Your task to perform on an android device: find photos in the google photos app Image 0: 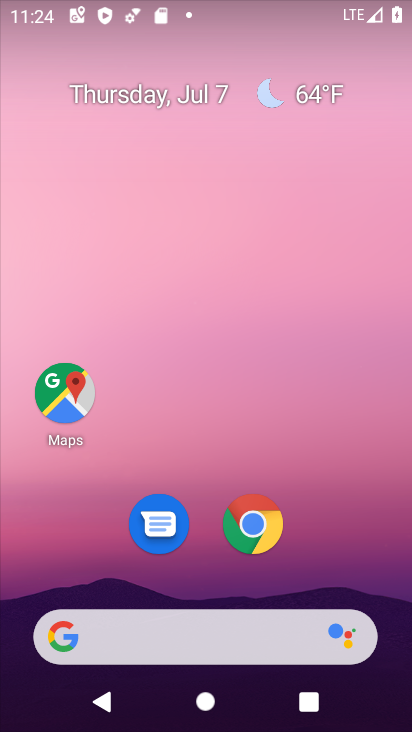
Step 0: drag from (302, 468) to (282, 0)
Your task to perform on an android device: find photos in the google photos app Image 1: 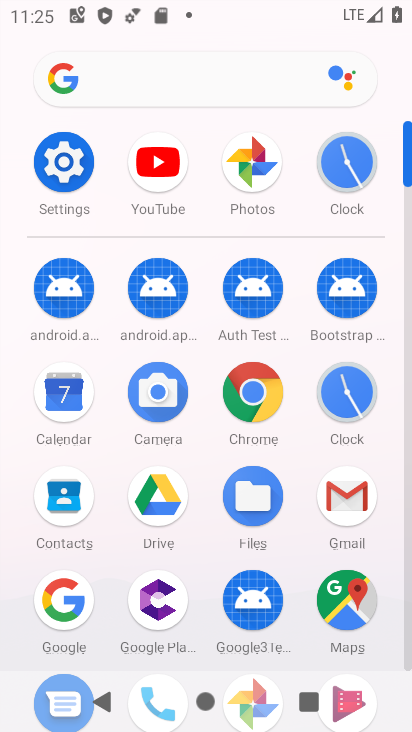
Step 1: click (249, 169)
Your task to perform on an android device: find photos in the google photos app Image 2: 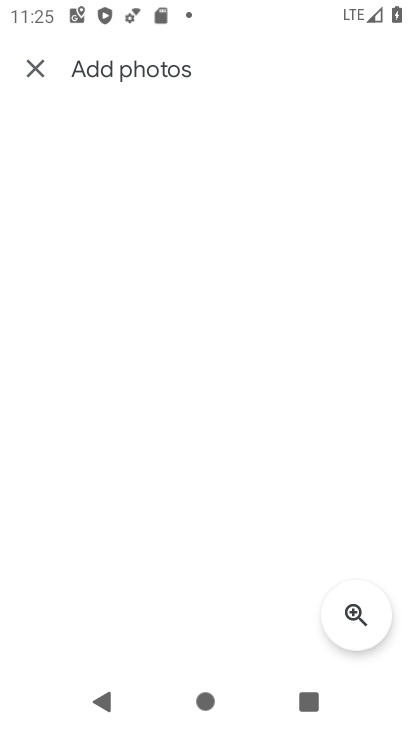
Step 2: click (33, 67)
Your task to perform on an android device: find photos in the google photos app Image 3: 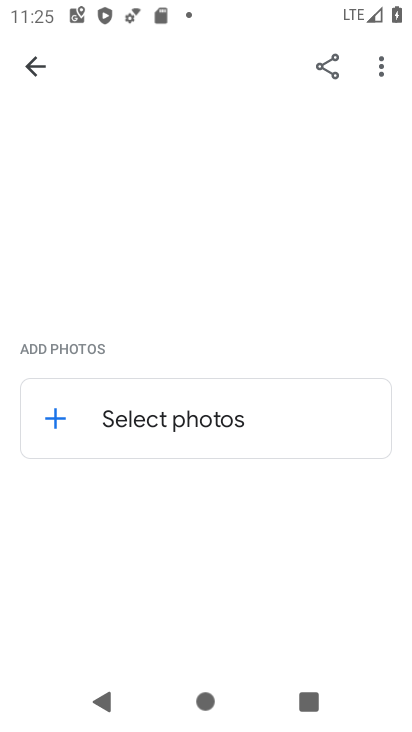
Step 3: click (41, 67)
Your task to perform on an android device: find photos in the google photos app Image 4: 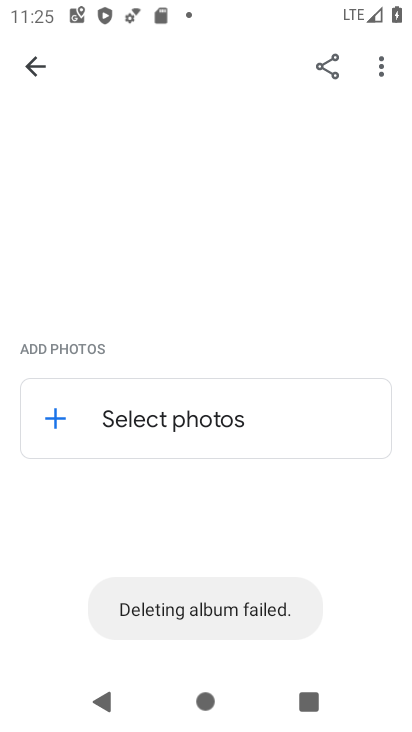
Step 4: click (41, 67)
Your task to perform on an android device: find photos in the google photos app Image 5: 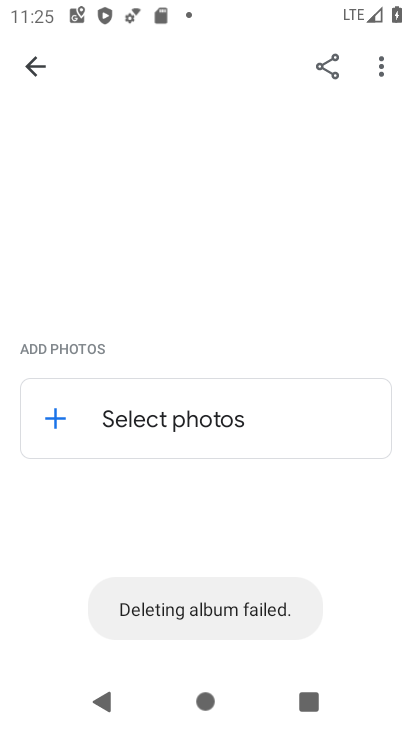
Step 5: press back button
Your task to perform on an android device: find photos in the google photos app Image 6: 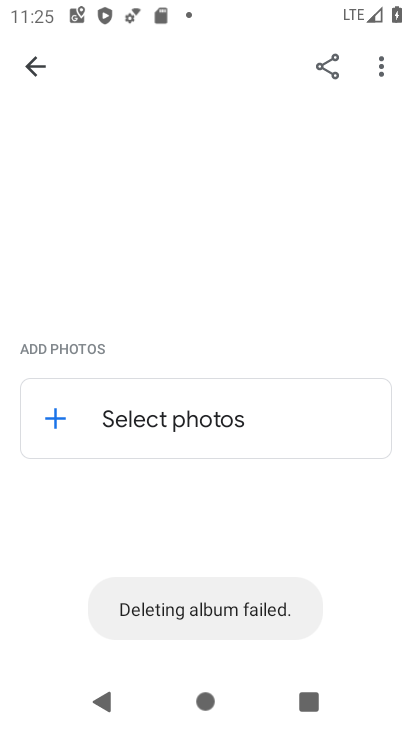
Step 6: press back button
Your task to perform on an android device: find photos in the google photos app Image 7: 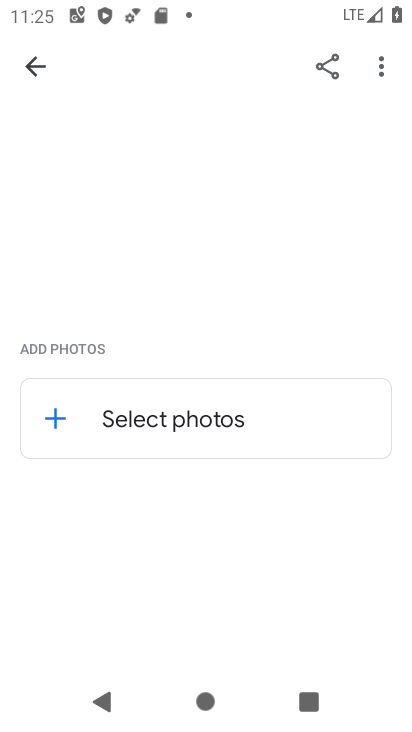
Step 7: click (108, 700)
Your task to perform on an android device: find photos in the google photos app Image 8: 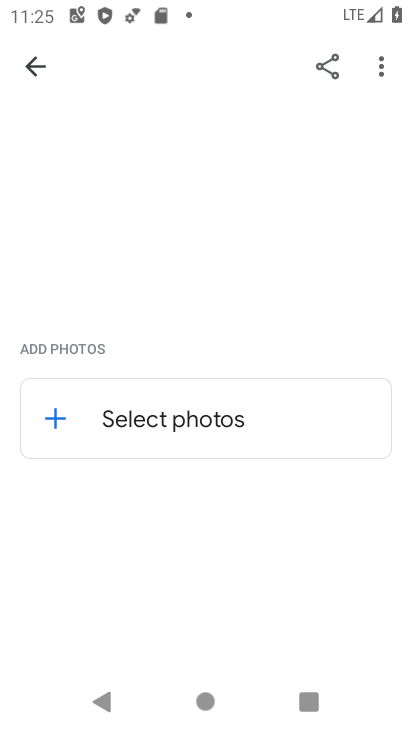
Step 8: press home button
Your task to perform on an android device: find photos in the google photos app Image 9: 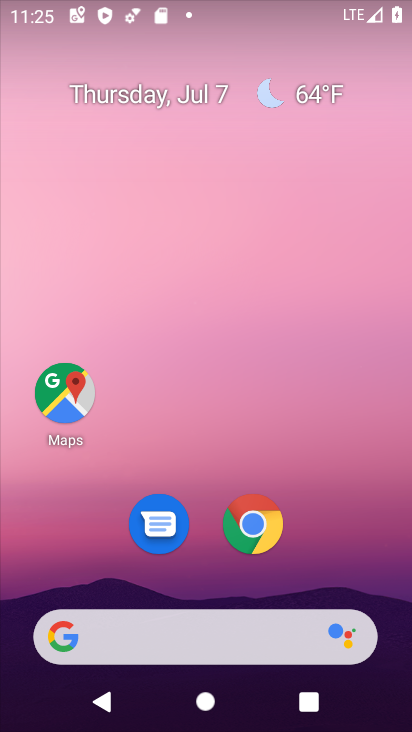
Step 9: drag from (218, 508) to (246, 18)
Your task to perform on an android device: find photos in the google photos app Image 10: 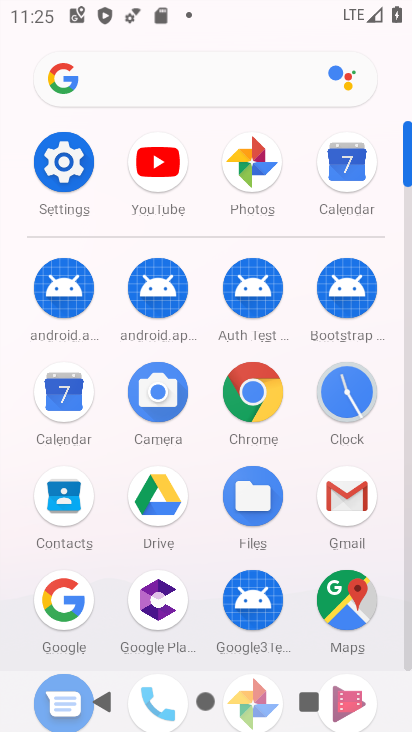
Step 10: click (238, 160)
Your task to perform on an android device: find photos in the google photos app Image 11: 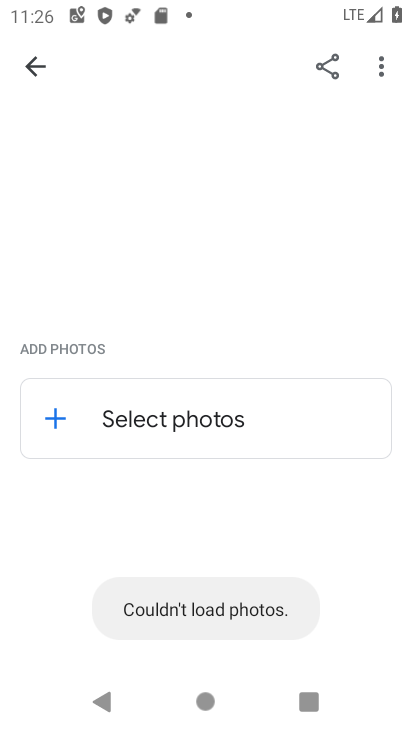
Step 11: click (384, 62)
Your task to perform on an android device: find photos in the google photos app Image 12: 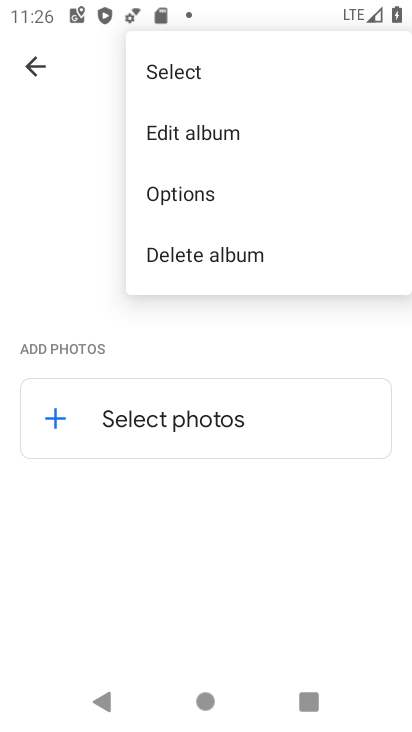
Step 12: click (223, 253)
Your task to perform on an android device: find photos in the google photos app Image 13: 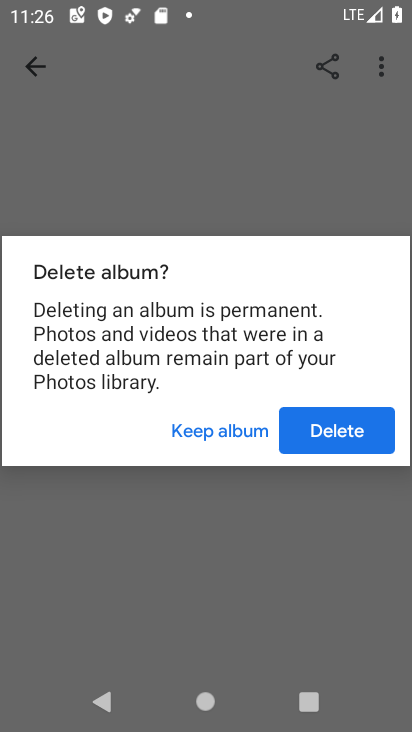
Step 13: click (316, 427)
Your task to perform on an android device: find photos in the google photos app Image 14: 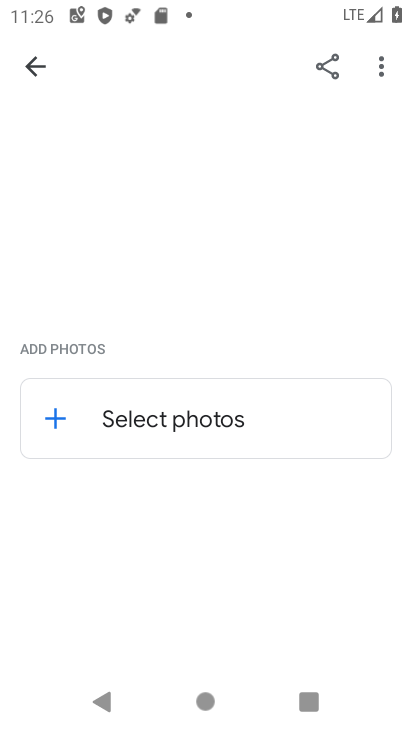
Step 14: click (53, 418)
Your task to perform on an android device: find photos in the google photos app Image 15: 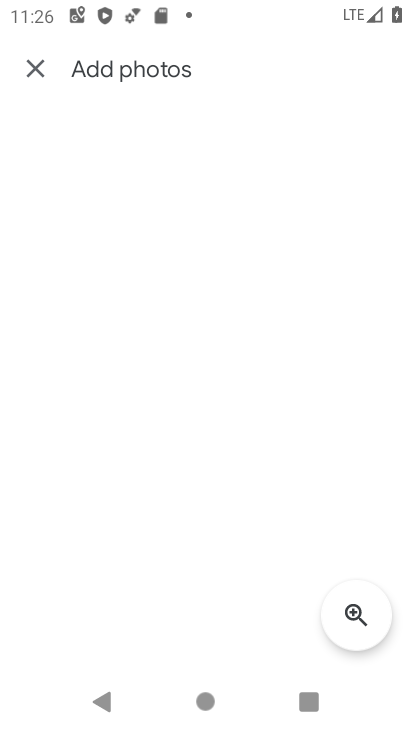
Step 15: click (38, 67)
Your task to perform on an android device: find photos in the google photos app Image 16: 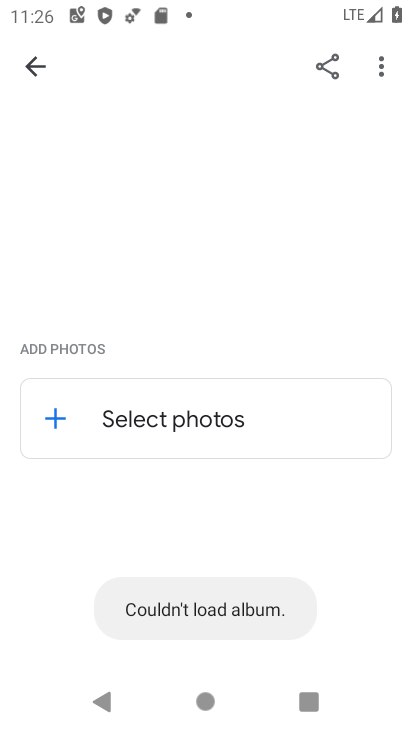
Step 16: click (38, 66)
Your task to perform on an android device: find photos in the google photos app Image 17: 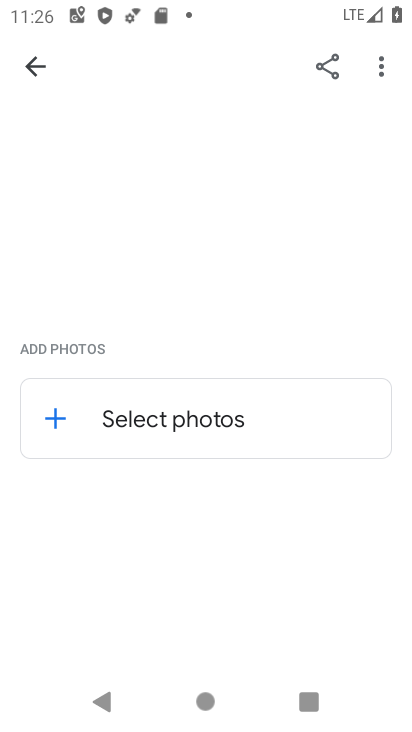
Step 17: task complete